Your task to perform on an android device: all mails in gmail Image 0: 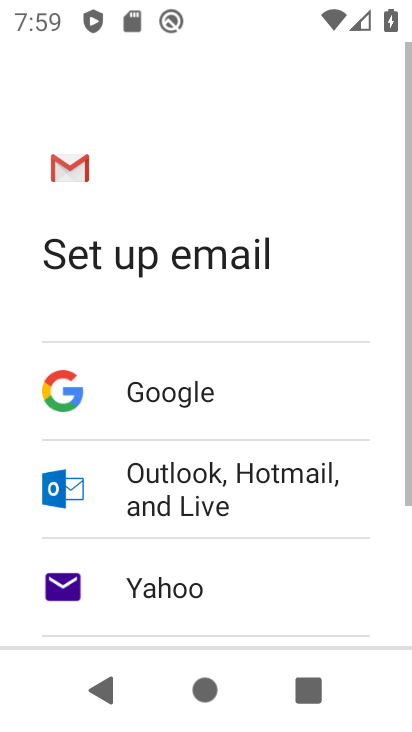
Step 0: press home button
Your task to perform on an android device: all mails in gmail Image 1: 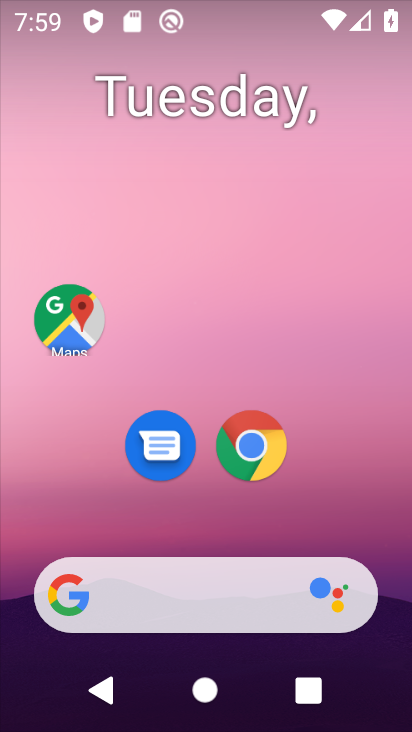
Step 1: drag from (197, 553) to (232, 258)
Your task to perform on an android device: all mails in gmail Image 2: 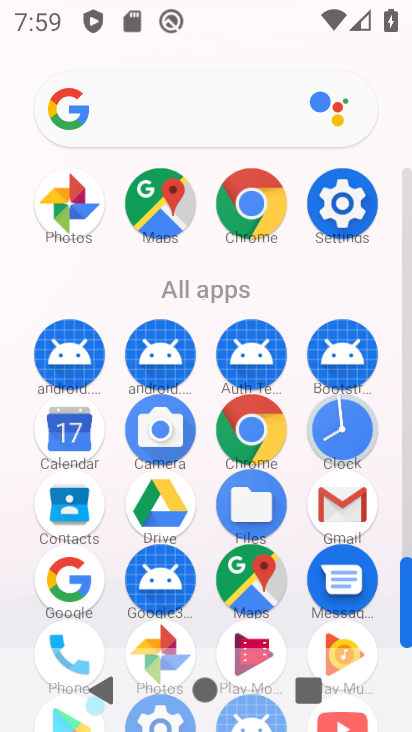
Step 2: click (327, 507)
Your task to perform on an android device: all mails in gmail Image 3: 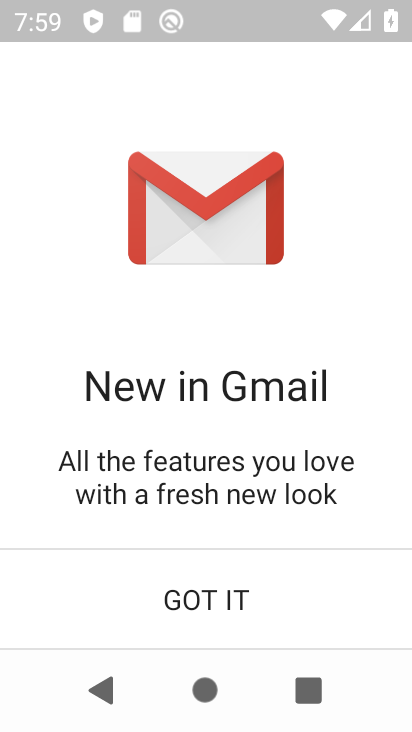
Step 3: click (189, 607)
Your task to perform on an android device: all mails in gmail Image 4: 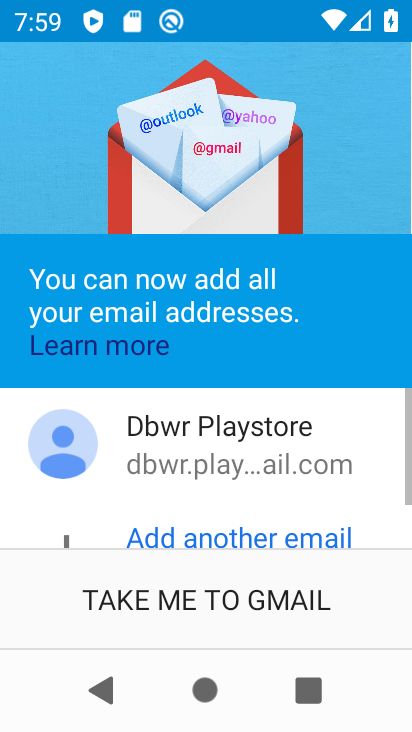
Step 4: click (189, 606)
Your task to perform on an android device: all mails in gmail Image 5: 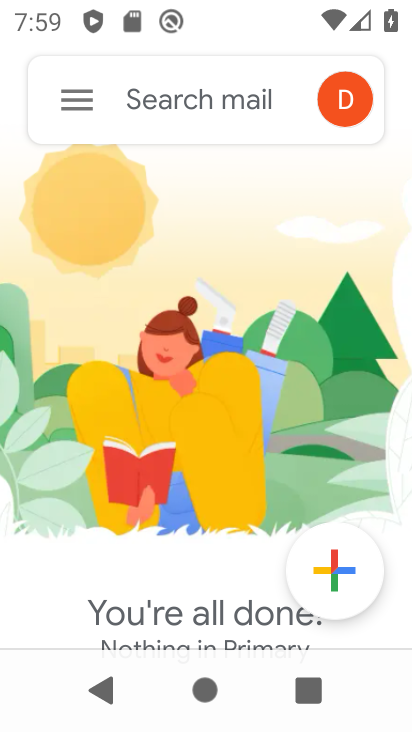
Step 5: click (61, 101)
Your task to perform on an android device: all mails in gmail Image 6: 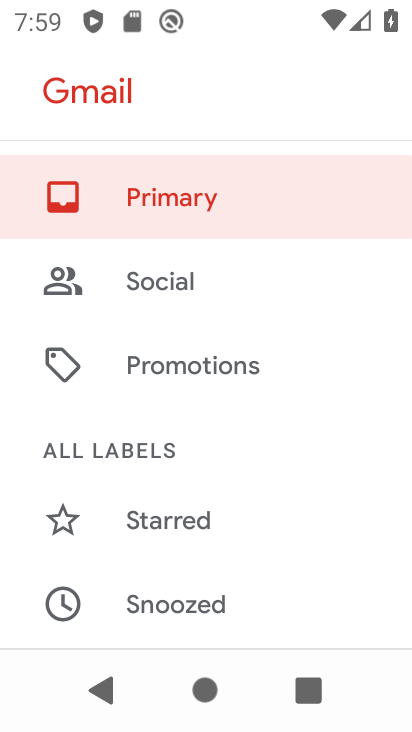
Step 6: drag from (193, 415) to (193, 307)
Your task to perform on an android device: all mails in gmail Image 7: 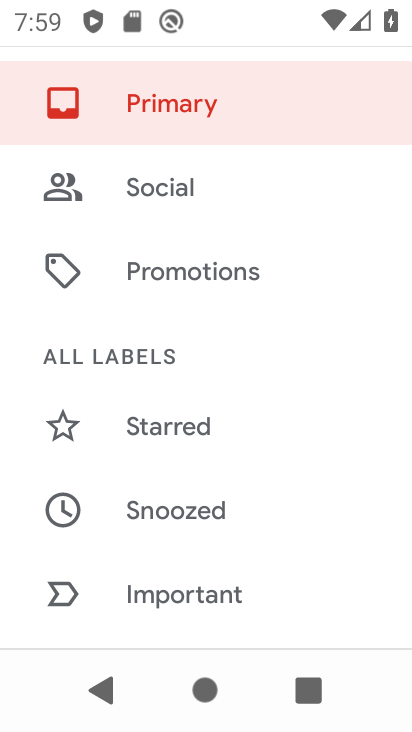
Step 7: drag from (234, 604) to (237, 304)
Your task to perform on an android device: all mails in gmail Image 8: 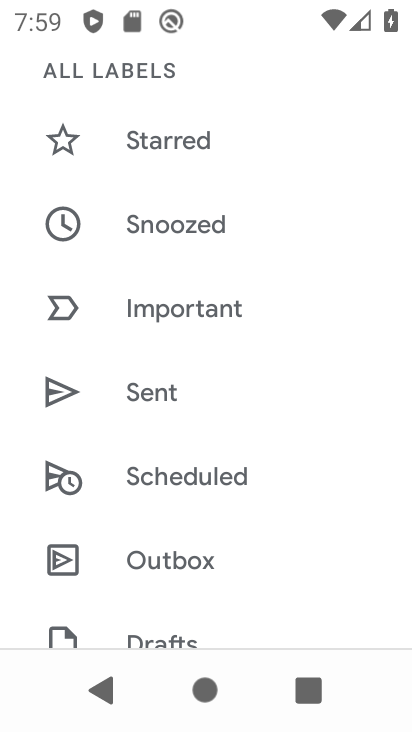
Step 8: drag from (255, 580) to (259, 423)
Your task to perform on an android device: all mails in gmail Image 9: 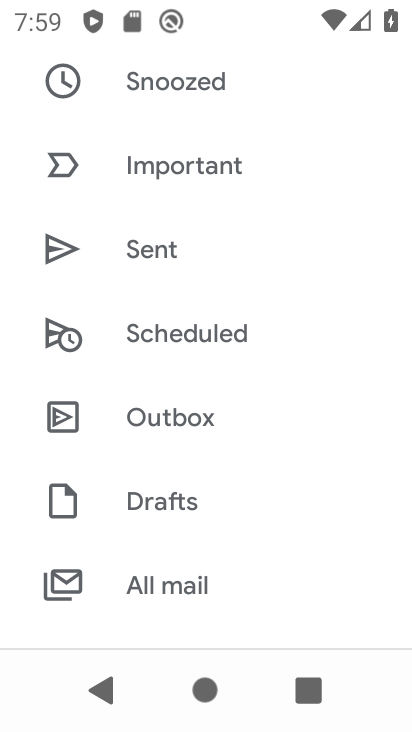
Step 9: click (202, 583)
Your task to perform on an android device: all mails in gmail Image 10: 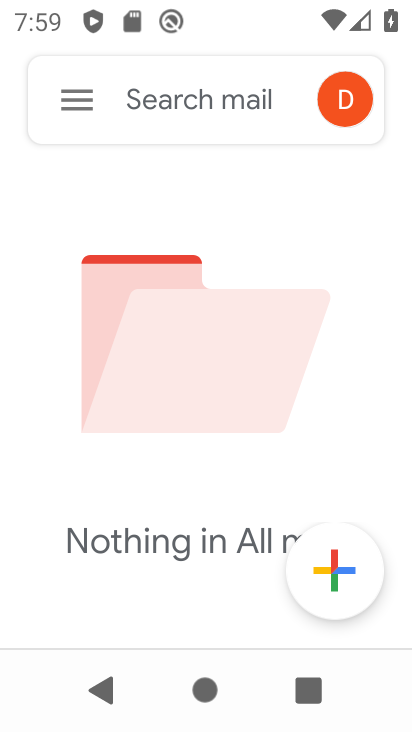
Step 10: task complete